Your task to perform on an android device: Open Reddit.com Image 0: 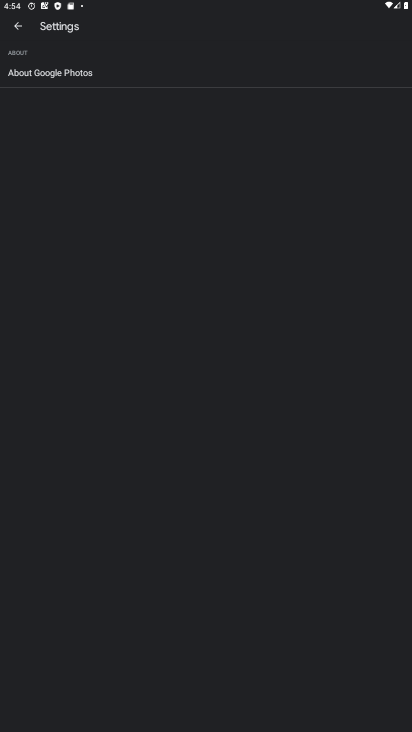
Step 0: press home button
Your task to perform on an android device: Open Reddit.com Image 1: 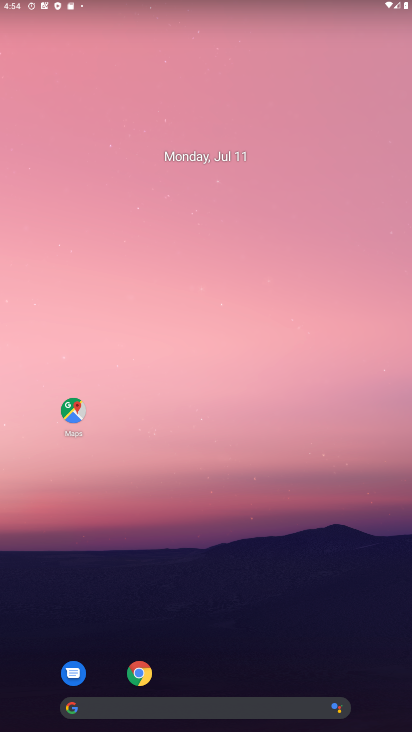
Step 1: click (139, 673)
Your task to perform on an android device: Open Reddit.com Image 2: 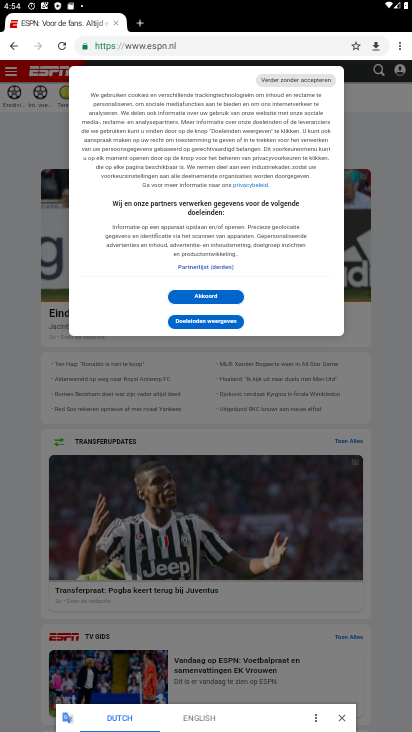
Step 2: click (276, 45)
Your task to perform on an android device: Open Reddit.com Image 3: 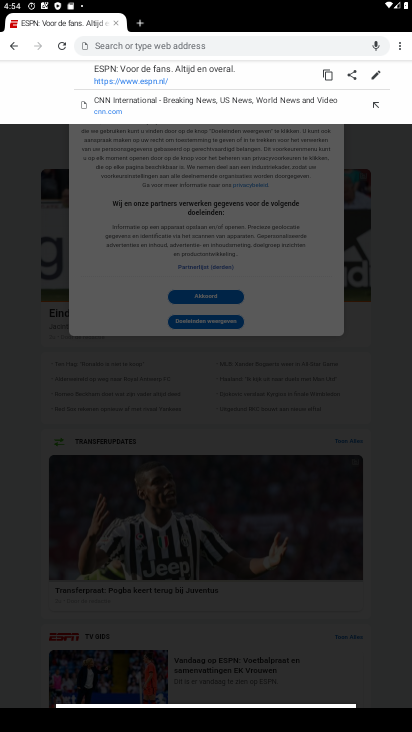
Step 3: type "Reddit.com"
Your task to perform on an android device: Open Reddit.com Image 4: 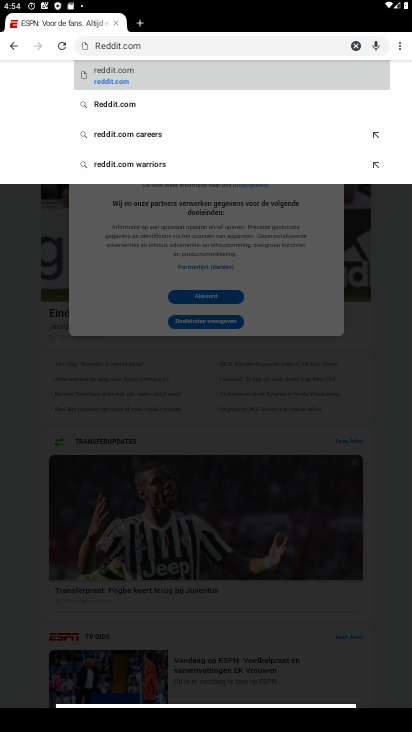
Step 4: click (124, 102)
Your task to perform on an android device: Open Reddit.com Image 5: 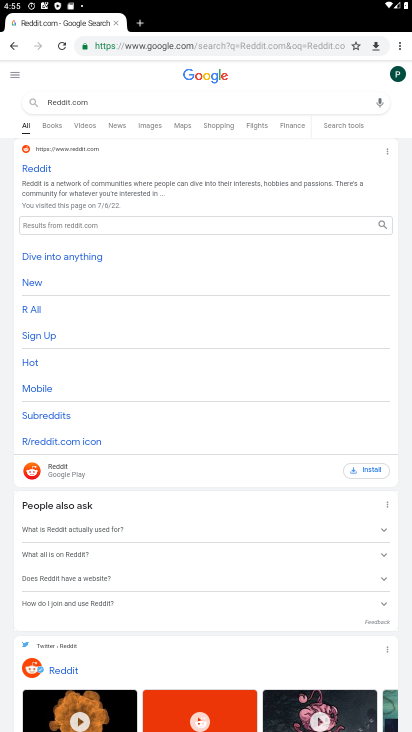
Step 5: click (35, 179)
Your task to perform on an android device: Open Reddit.com Image 6: 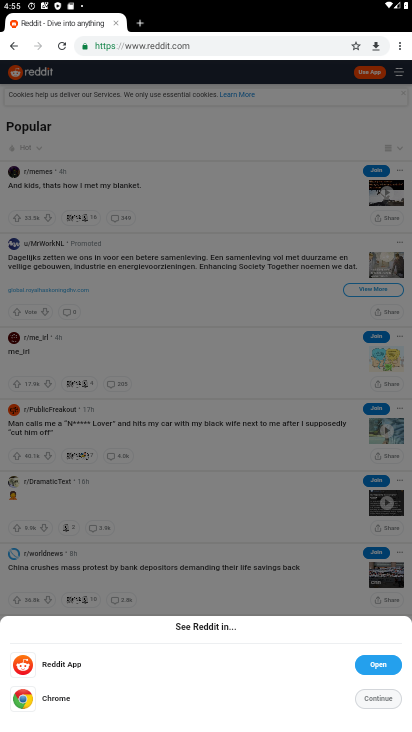
Step 6: click (371, 696)
Your task to perform on an android device: Open Reddit.com Image 7: 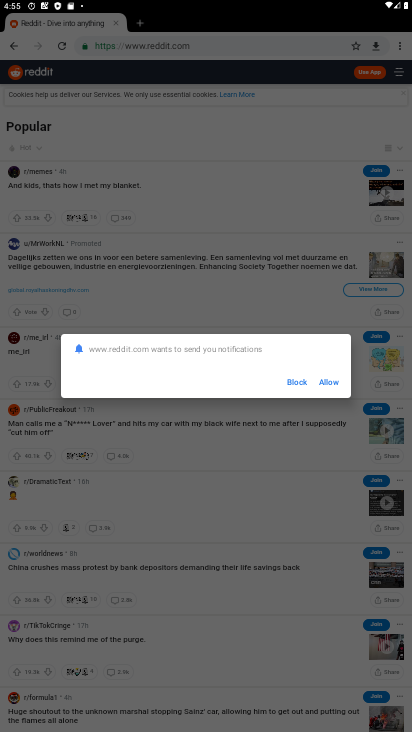
Step 7: click (332, 381)
Your task to perform on an android device: Open Reddit.com Image 8: 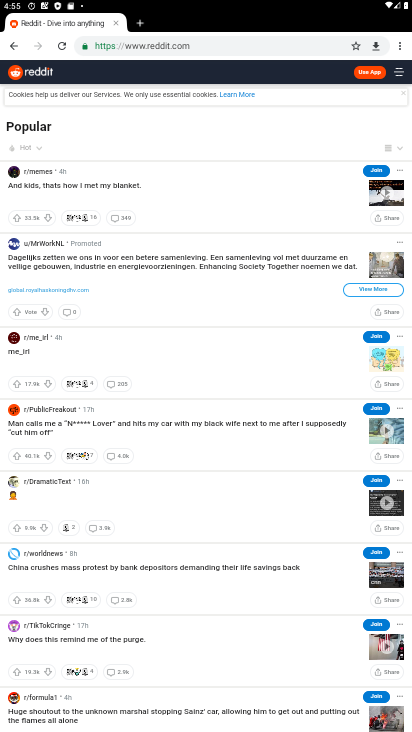
Step 8: task complete